Your task to perform on an android device: delete the emails in spam in the gmail app Image 0: 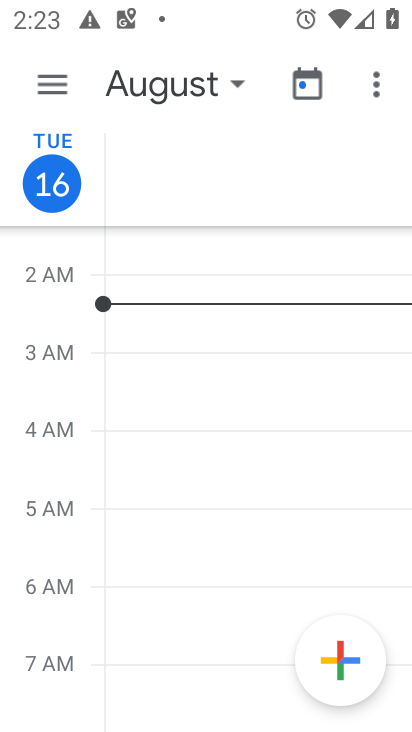
Step 0: press home button
Your task to perform on an android device: delete the emails in spam in the gmail app Image 1: 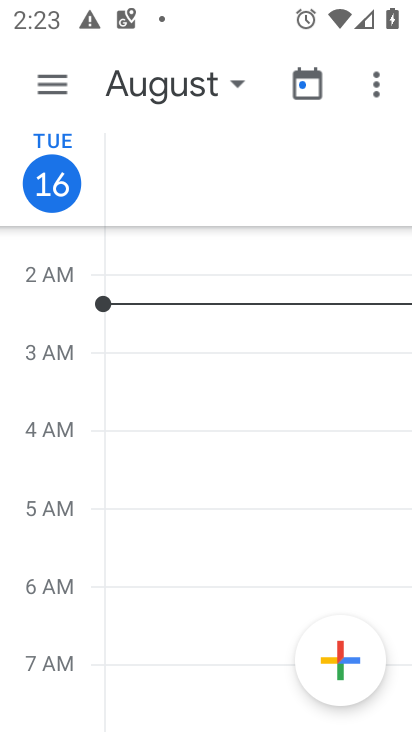
Step 1: press home button
Your task to perform on an android device: delete the emails in spam in the gmail app Image 2: 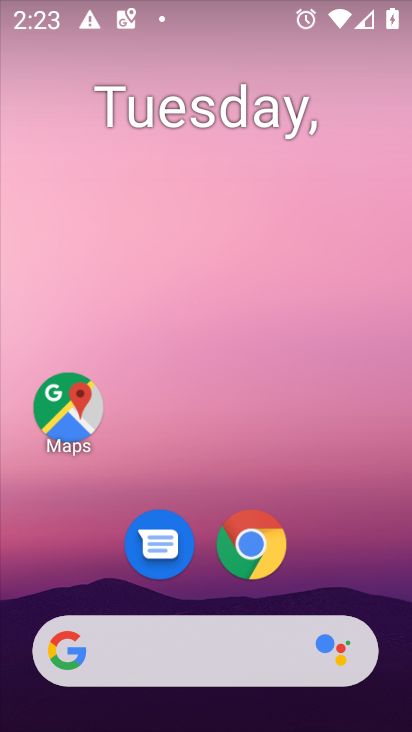
Step 2: drag from (327, 535) to (261, 114)
Your task to perform on an android device: delete the emails in spam in the gmail app Image 3: 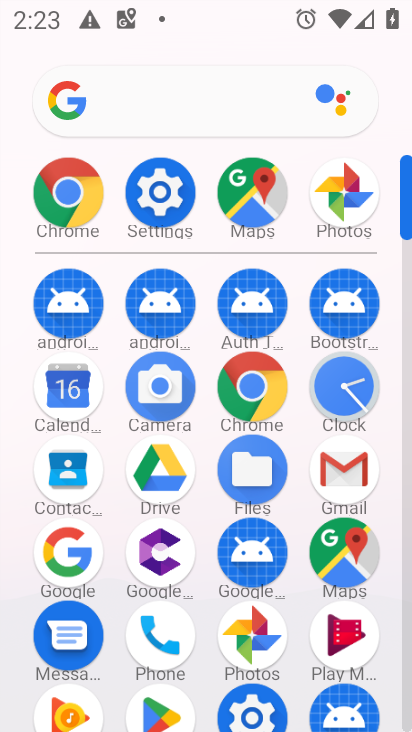
Step 3: click (330, 470)
Your task to perform on an android device: delete the emails in spam in the gmail app Image 4: 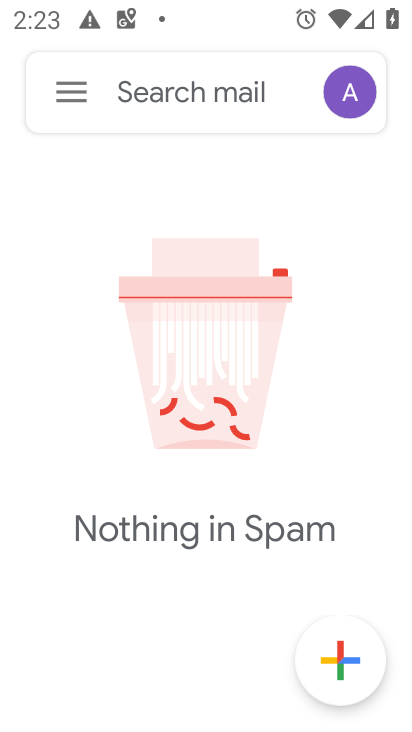
Step 4: click (80, 95)
Your task to perform on an android device: delete the emails in spam in the gmail app Image 5: 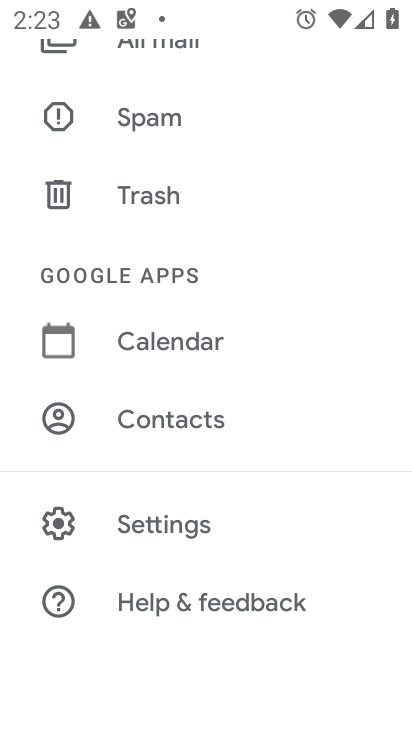
Step 5: click (138, 142)
Your task to perform on an android device: delete the emails in spam in the gmail app Image 6: 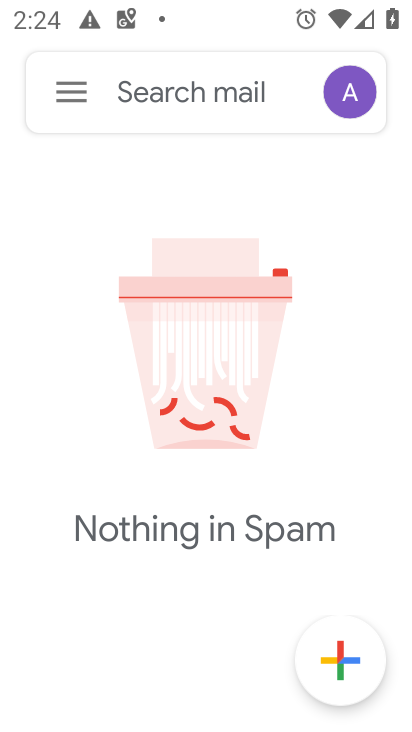
Step 6: press home button
Your task to perform on an android device: delete the emails in spam in the gmail app Image 7: 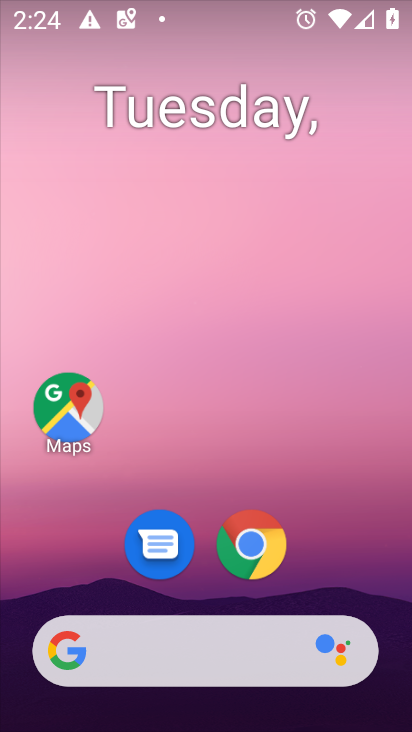
Step 7: drag from (295, 395) to (299, 92)
Your task to perform on an android device: delete the emails in spam in the gmail app Image 8: 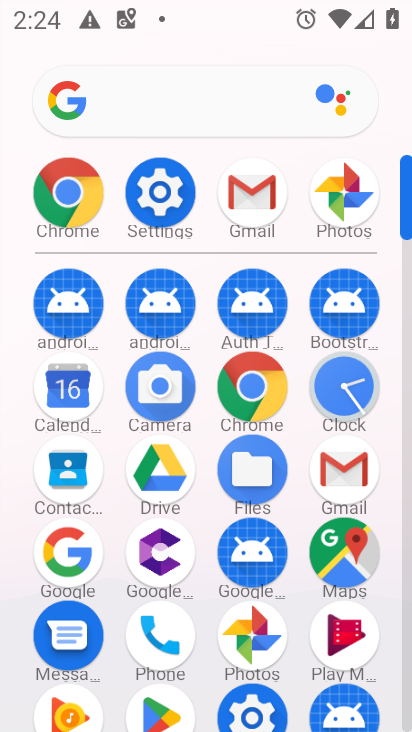
Step 8: click (349, 469)
Your task to perform on an android device: delete the emails in spam in the gmail app Image 9: 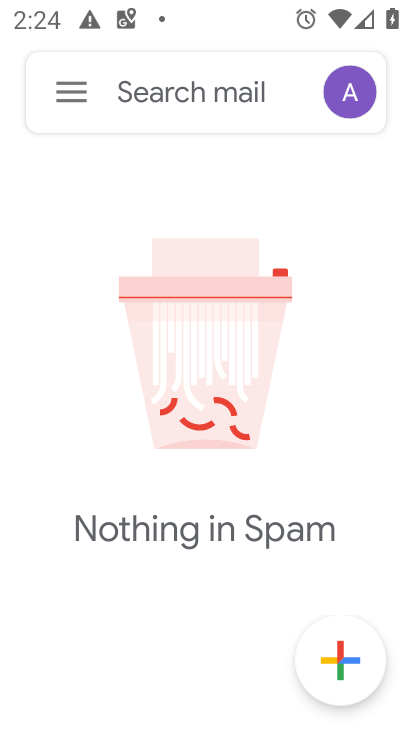
Step 9: task complete